Your task to perform on an android device: How much does a 2 bedroom apartment rent for in Philadelphia? Image 0: 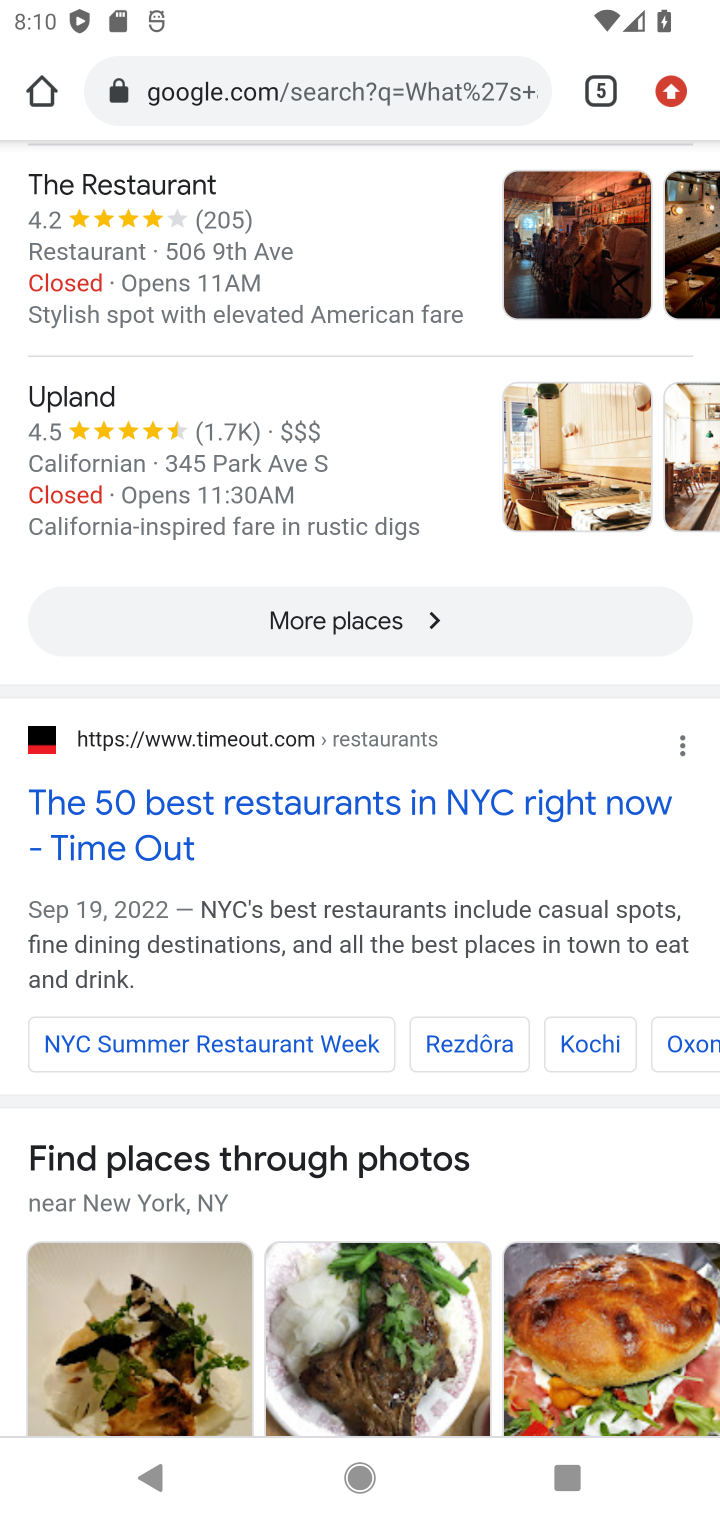
Step 0: drag from (450, 602) to (660, 1479)
Your task to perform on an android device: How much does a 2 bedroom apartment rent for in Philadelphia? Image 1: 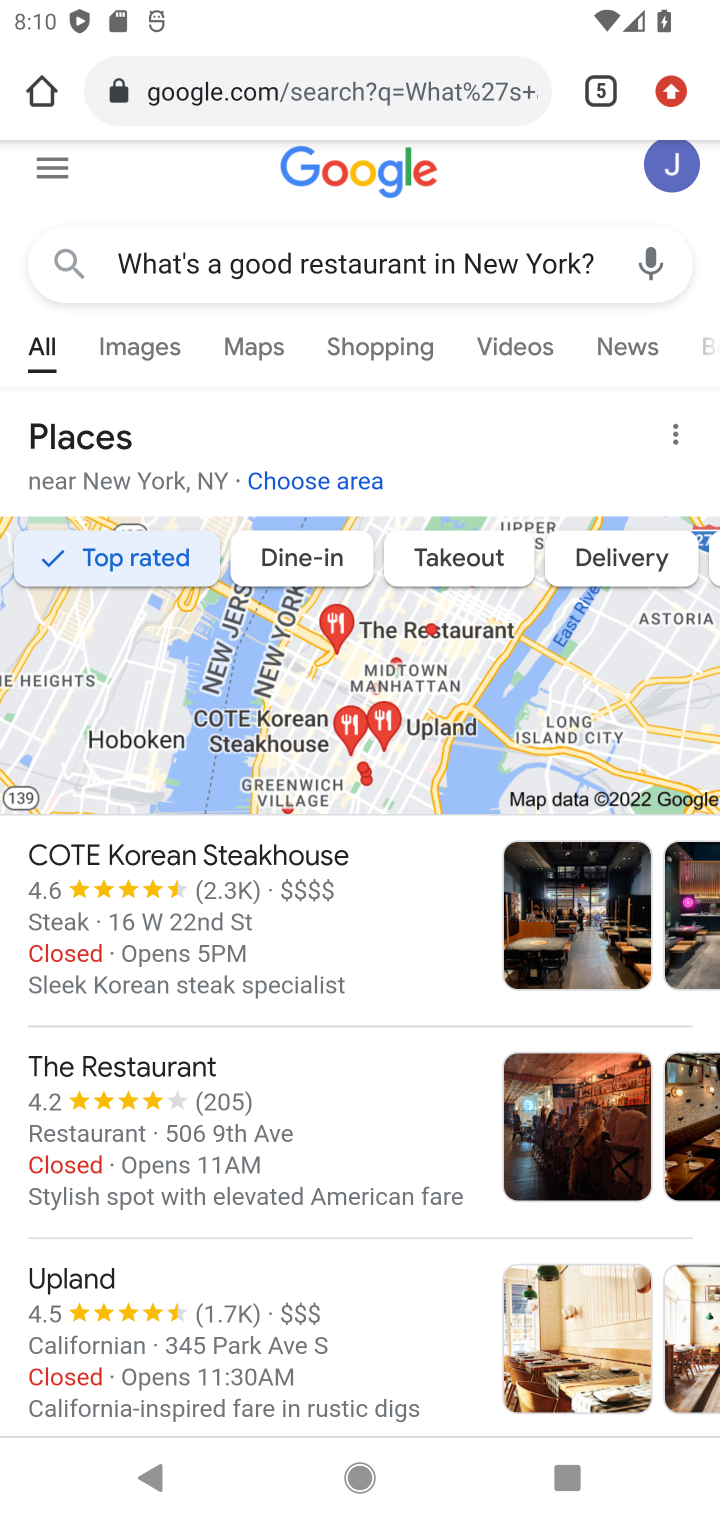
Step 1: press home button
Your task to perform on an android device: How much does a 2 bedroom apartment rent for in Philadelphia? Image 2: 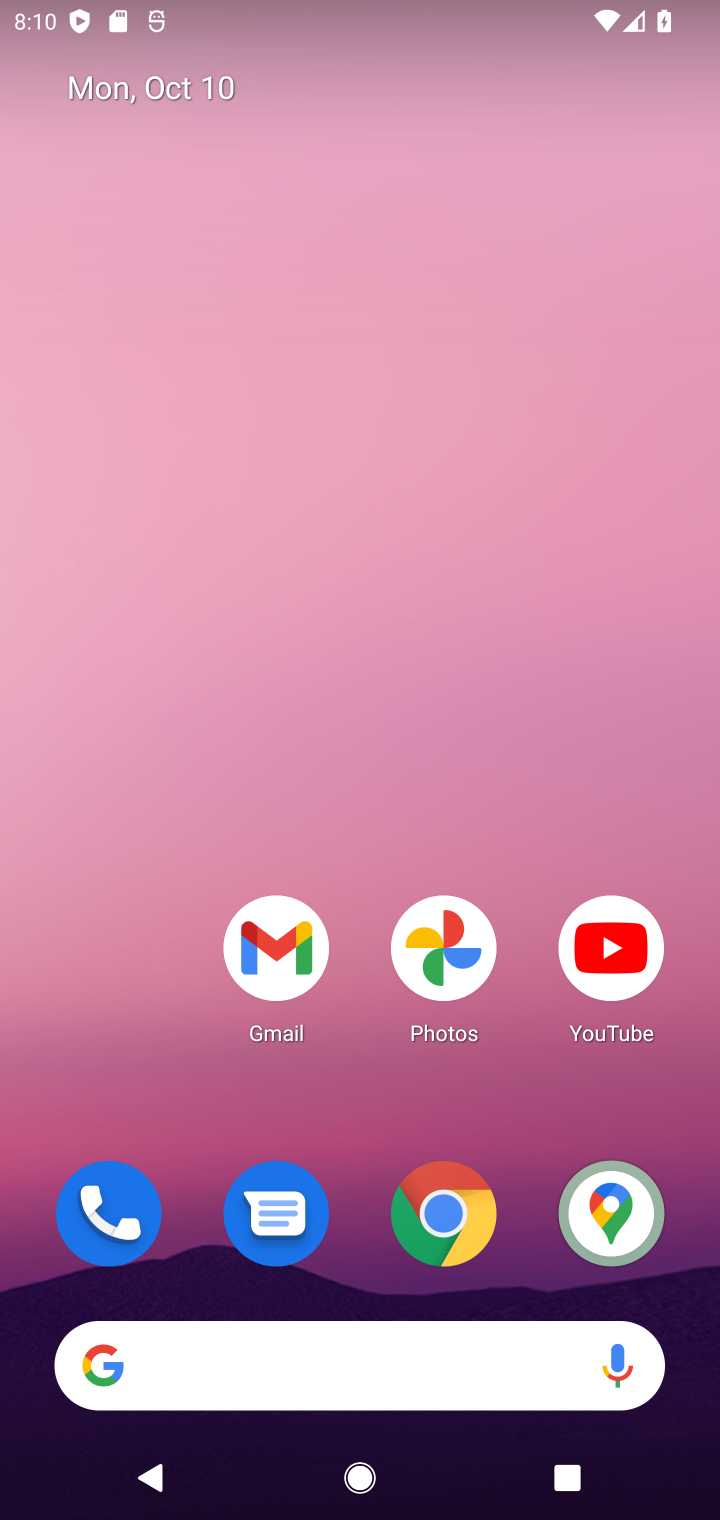
Step 2: click (412, 1367)
Your task to perform on an android device: How much does a 2 bedroom apartment rent for in Philadelphia? Image 3: 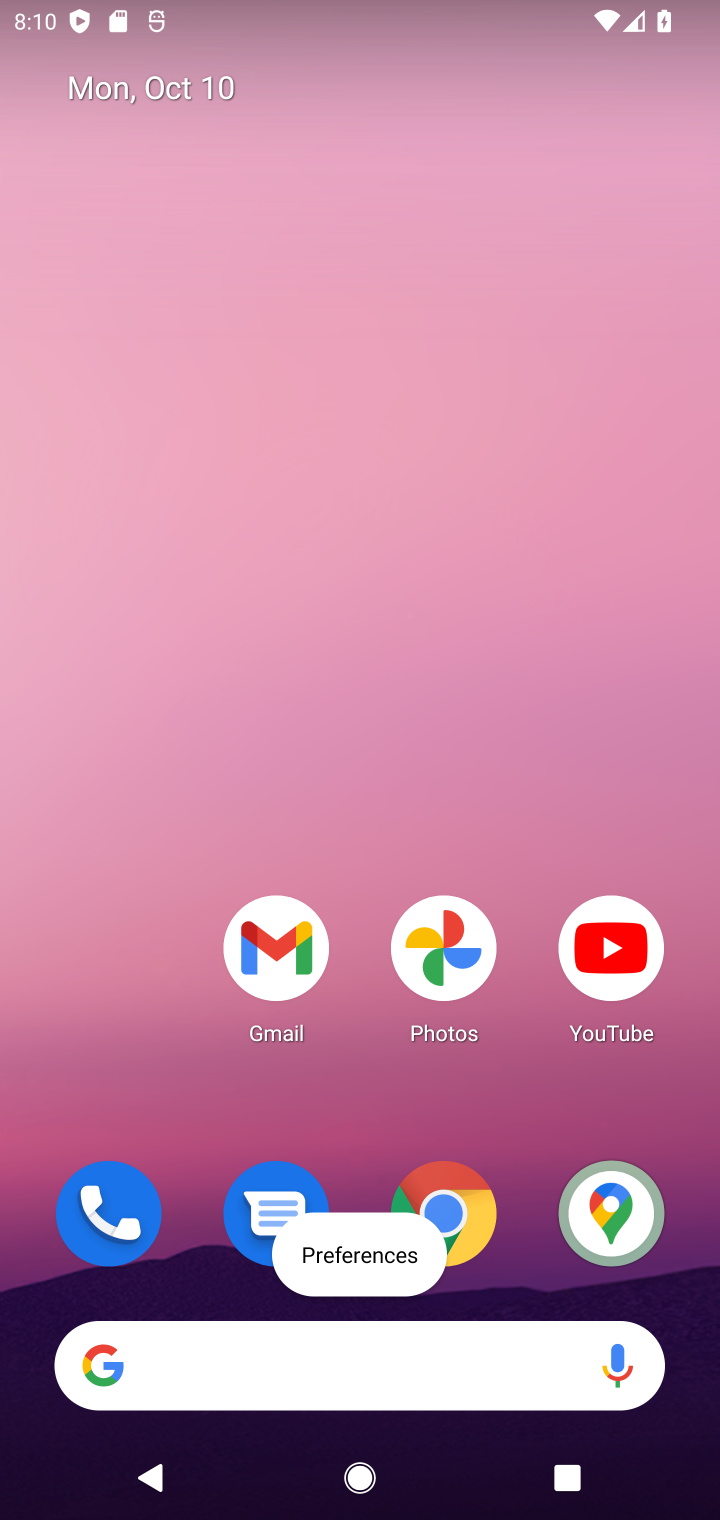
Step 3: click (390, 1364)
Your task to perform on an android device: How much does a 2 bedroom apartment rent for in Philadelphia? Image 4: 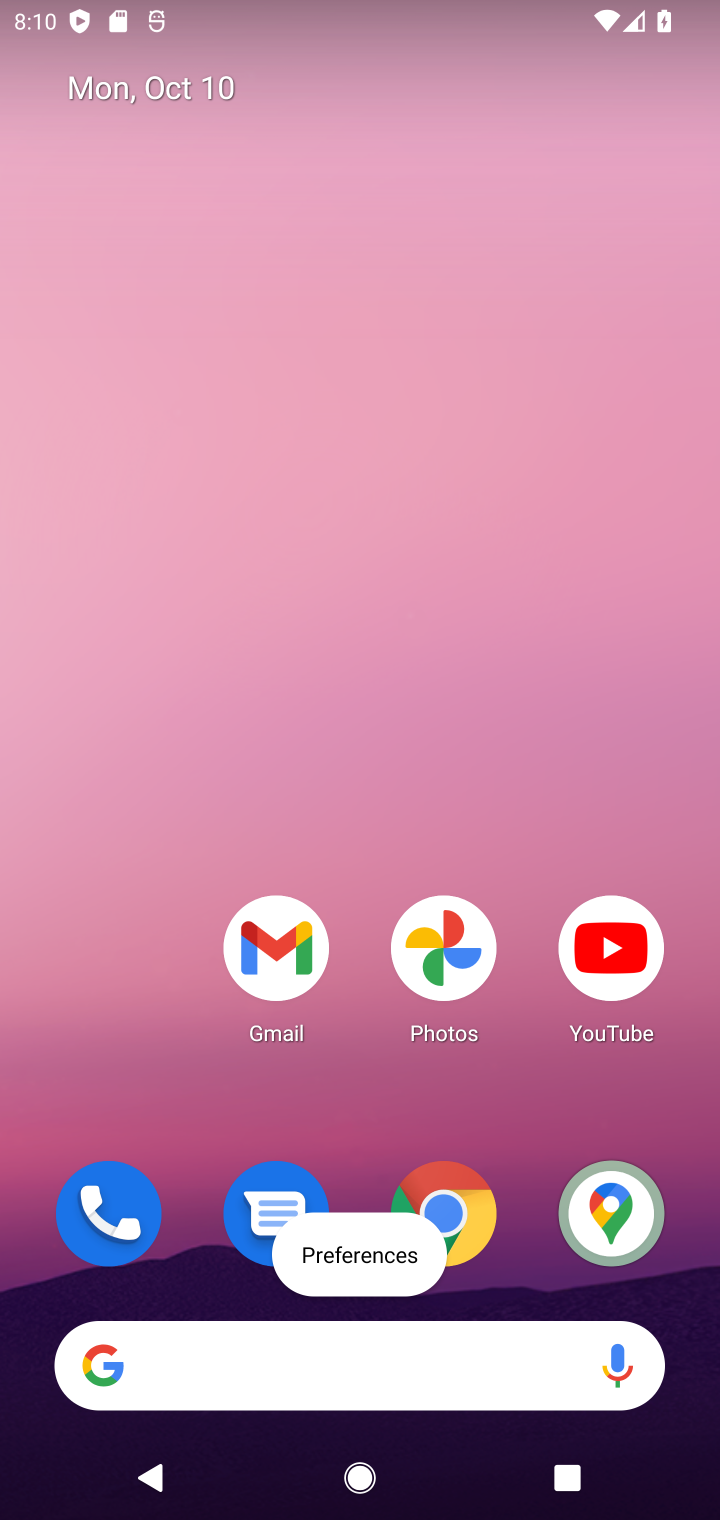
Step 4: click (229, 1389)
Your task to perform on an android device: How much does a 2 bedroom apartment rent for in Philadelphia? Image 5: 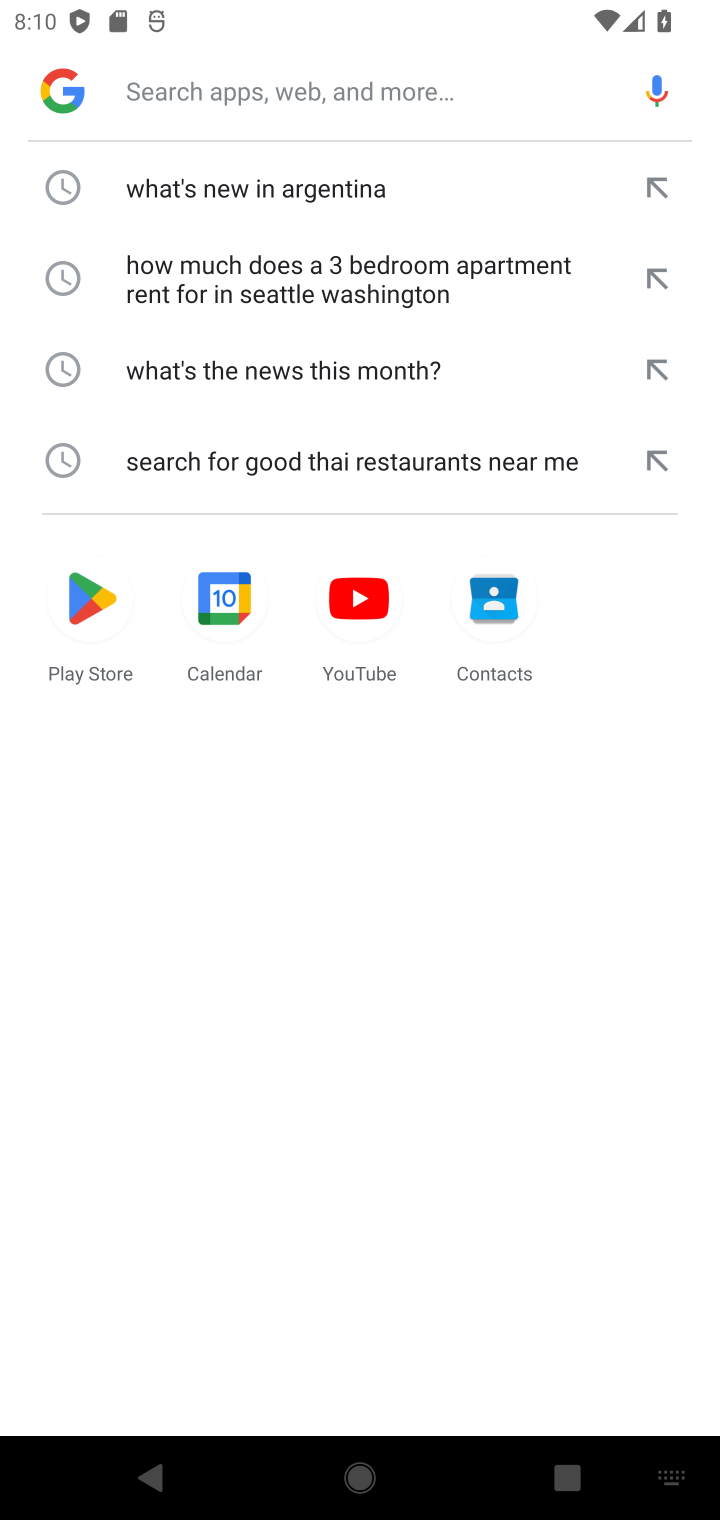
Step 5: click (226, 91)
Your task to perform on an android device: How much does a 2 bedroom apartment rent for in Philadelphia? Image 6: 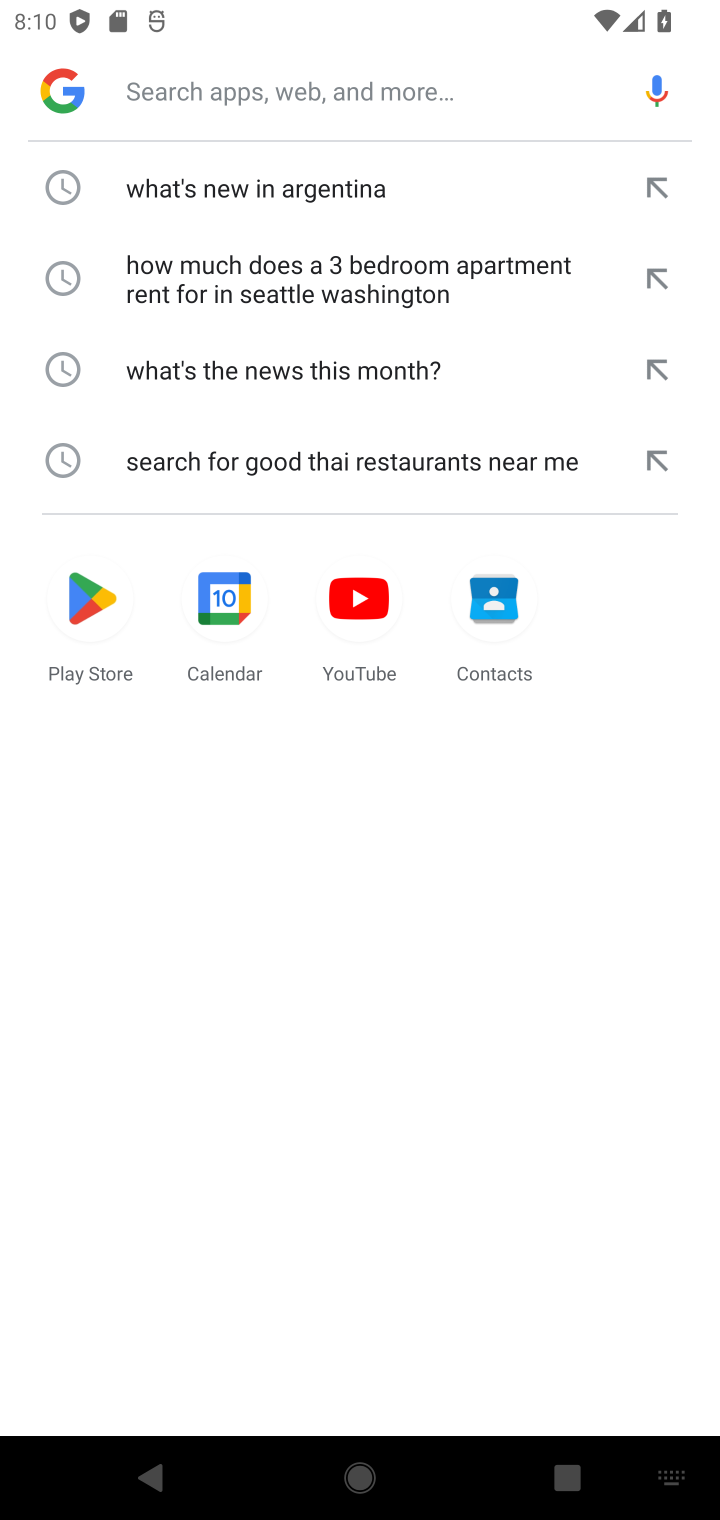
Step 6: type "How much does a 2 bedroom apartment rent for in Philadelphia?"
Your task to perform on an android device: How much does a 2 bedroom apartment rent for in Philadelphia? Image 7: 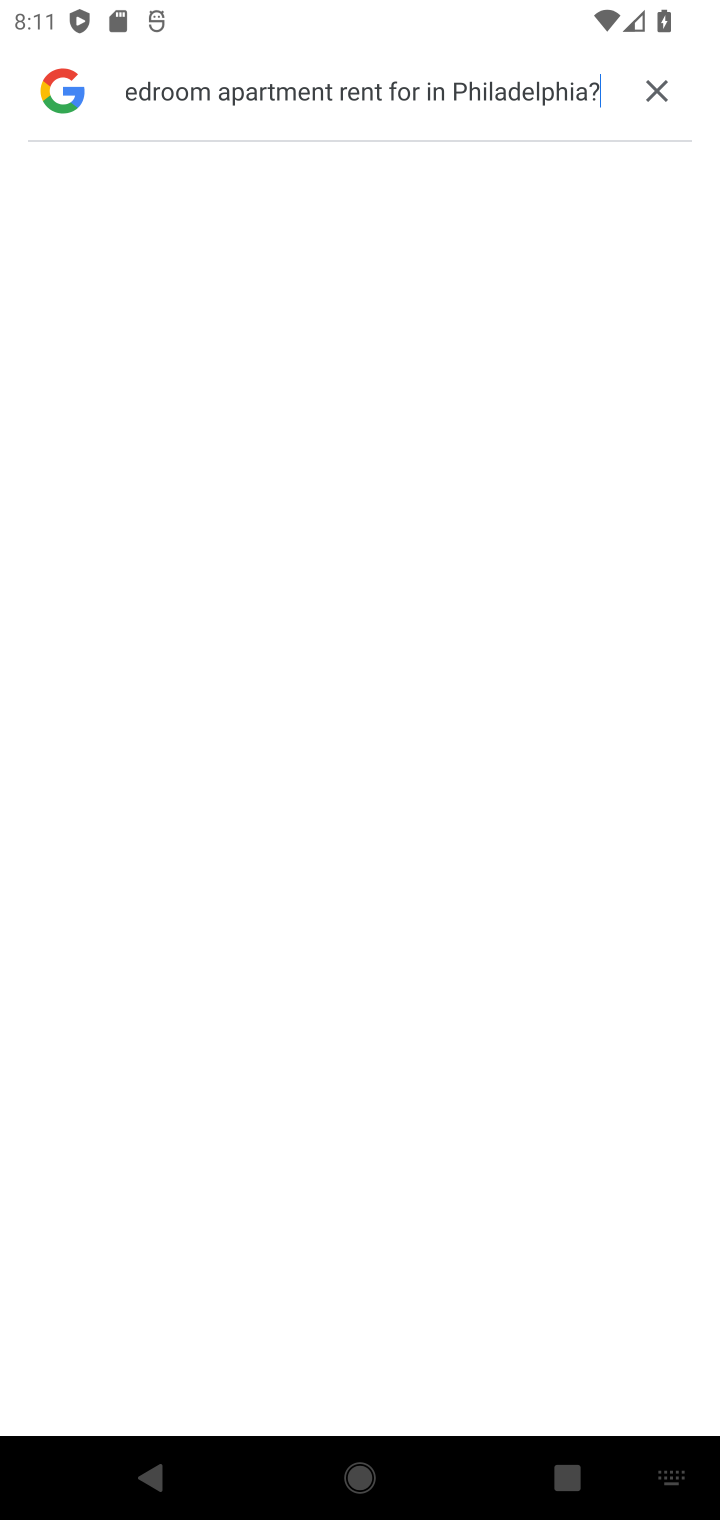
Step 7: task complete